Your task to perform on an android device: Open Android settings Image 0: 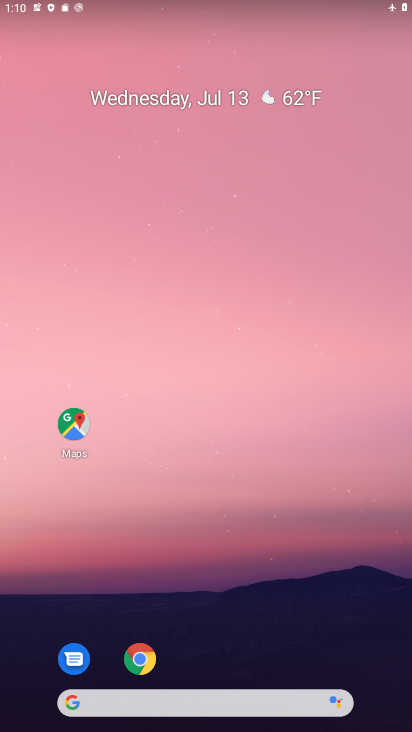
Step 0: drag from (212, 725) to (203, 63)
Your task to perform on an android device: Open Android settings Image 1: 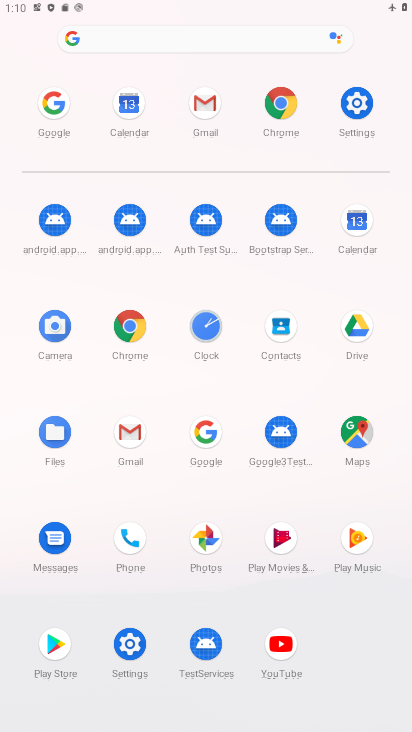
Step 1: click (357, 102)
Your task to perform on an android device: Open Android settings Image 2: 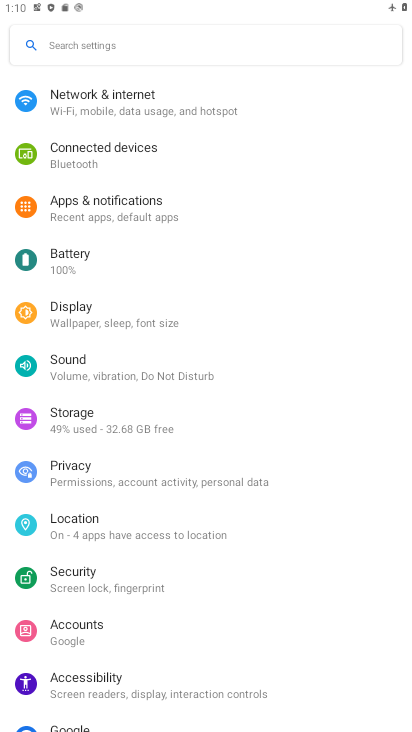
Step 2: task complete